Your task to perform on an android device: Show me popular games on the Play Store Image 0: 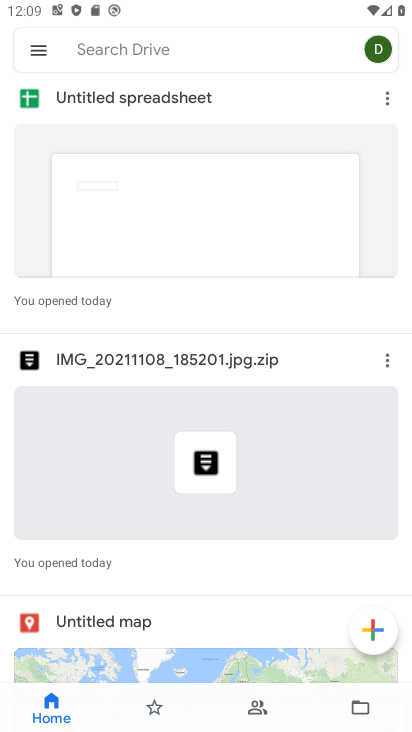
Step 0: press home button
Your task to perform on an android device: Show me popular games on the Play Store Image 1: 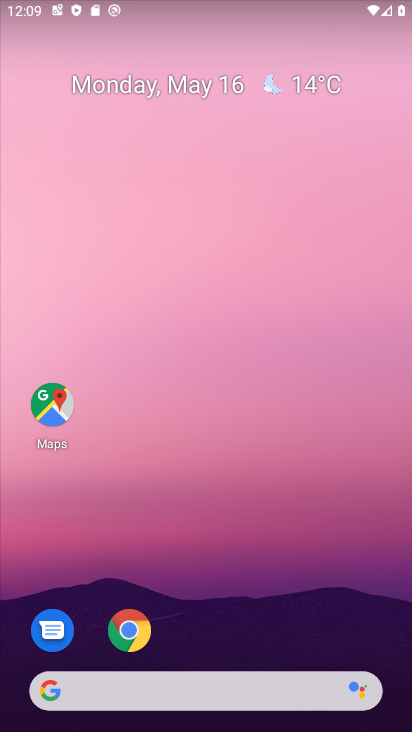
Step 1: drag from (226, 600) to (208, 148)
Your task to perform on an android device: Show me popular games on the Play Store Image 2: 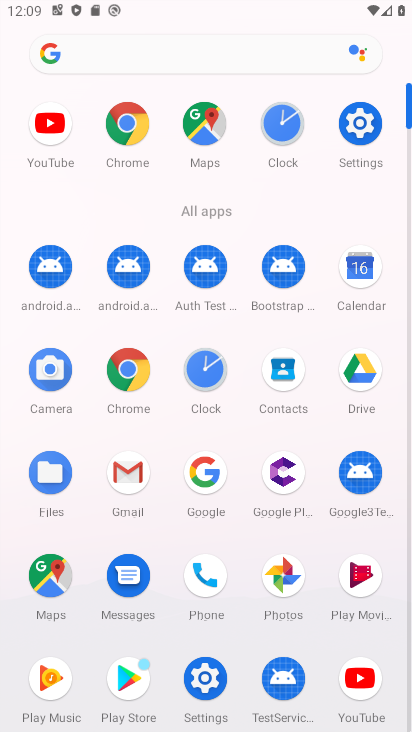
Step 2: click (132, 694)
Your task to perform on an android device: Show me popular games on the Play Store Image 3: 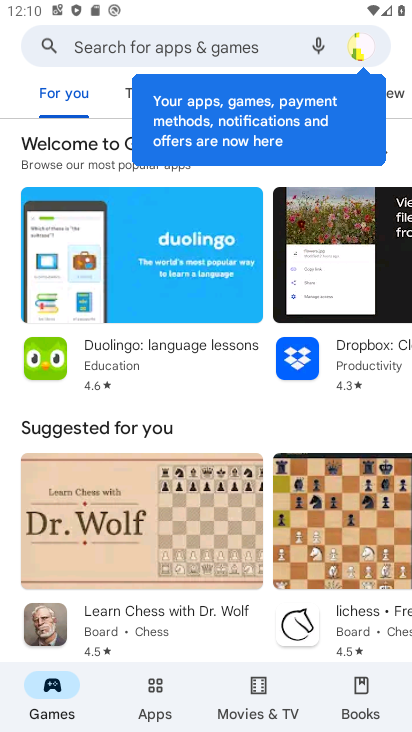
Step 3: click (95, 156)
Your task to perform on an android device: Show me popular games on the Play Store Image 4: 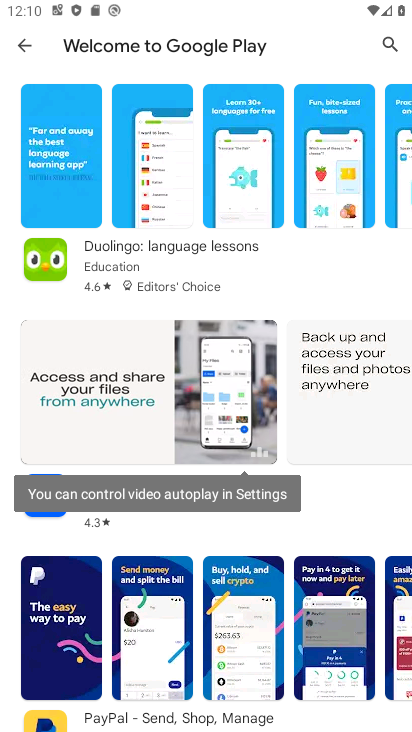
Step 4: task complete